Your task to perform on an android device: Open Chrome and go to the settings page Image 0: 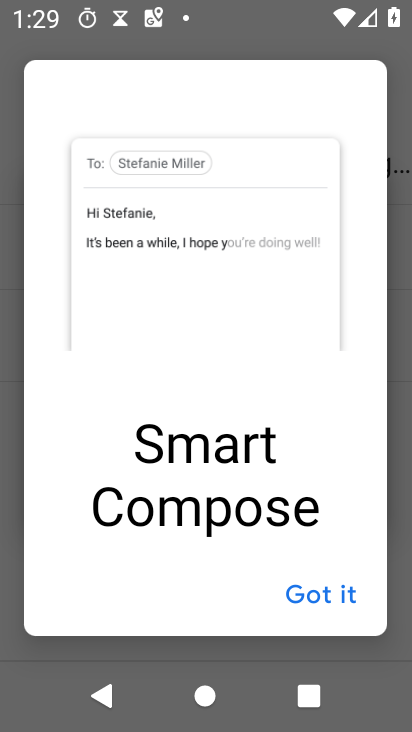
Step 0: press home button
Your task to perform on an android device: Open Chrome and go to the settings page Image 1: 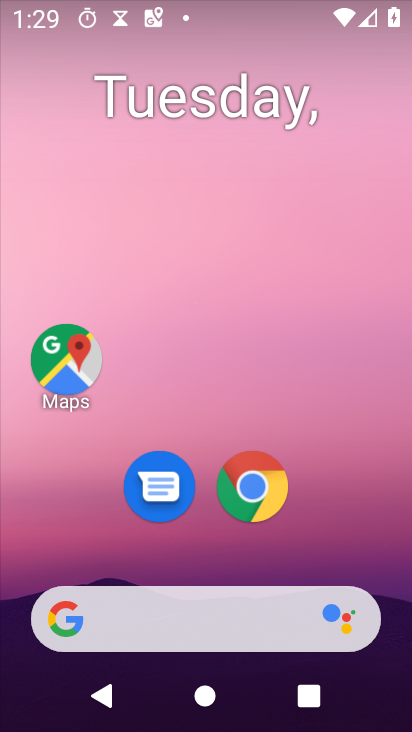
Step 1: drag from (373, 566) to (304, 154)
Your task to perform on an android device: Open Chrome and go to the settings page Image 2: 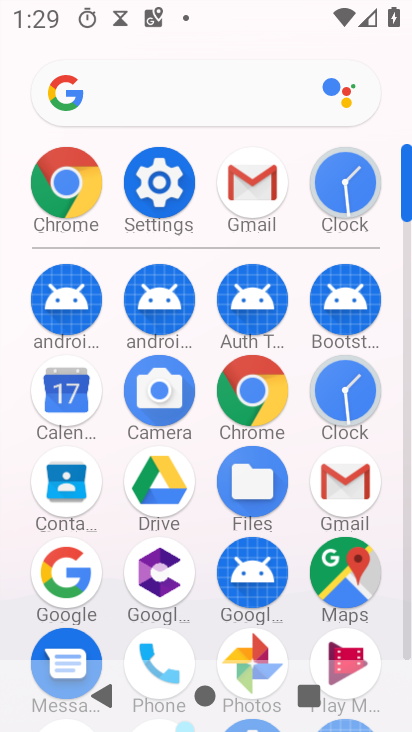
Step 2: click (67, 165)
Your task to perform on an android device: Open Chrome and go to the settings page Image 3: 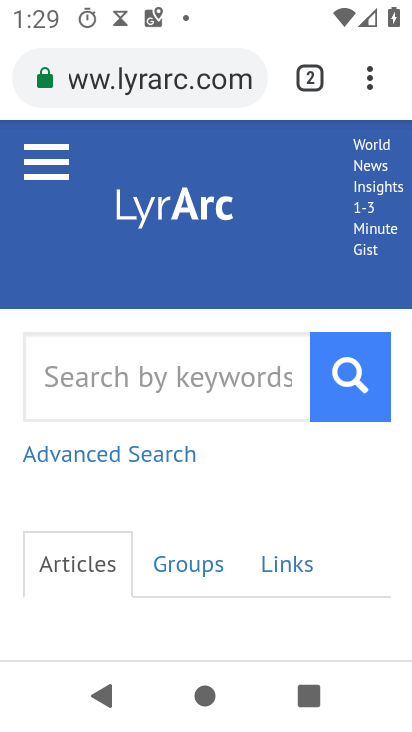
Step 3: click (367, 91)
Your task to perform on an android device: Open Chrome and go to the settings page Image 4: 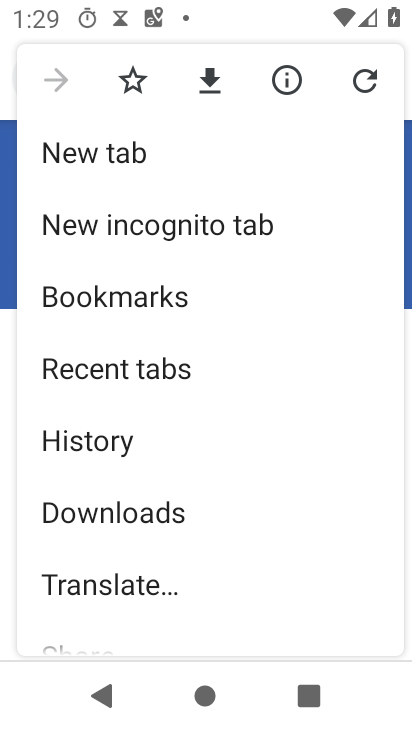
Step 4: drag from (352, 616) to (265, 195)
Your task to perform on an android device: Open Chrome and go to the settings page Image 5: 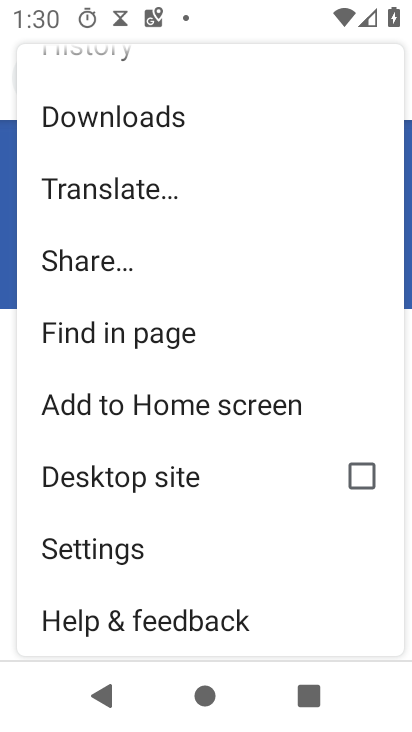
Step 5: click (224, 561)
Your task to perform on an android device: Open Chrome and go to the settings page Image 6: 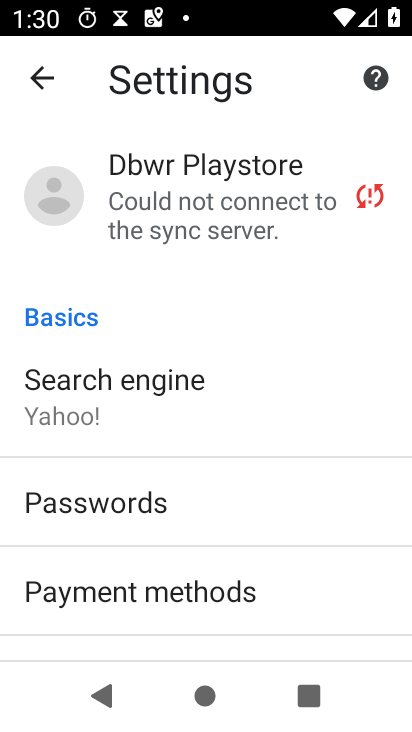
Step 6: task complete